Your task to perform on an android device: Open Maps and search for coffee Image 0: 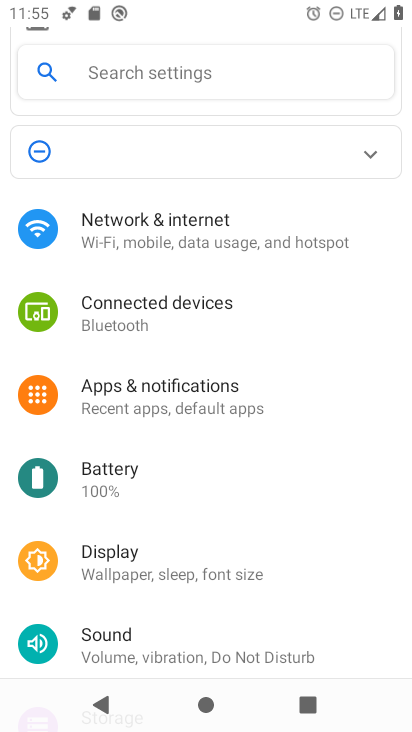
Step 0: press home button
Your task to perform on an android device: Open Maps and search for coffee Image 1: 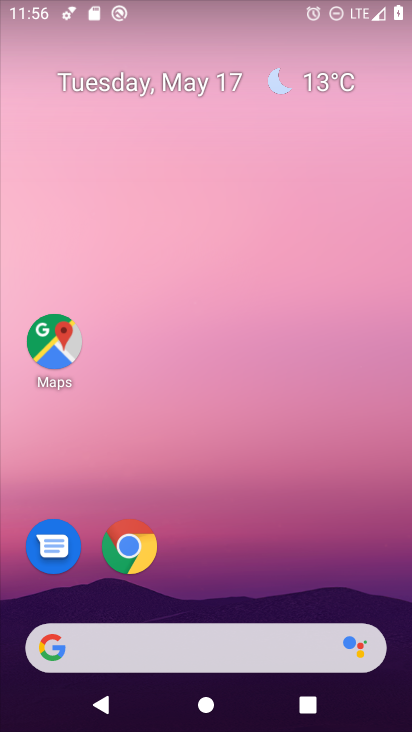
Step 1: click (45, 352)
Your task to perform on an android device: Open Maps and search for coffee Image 2: 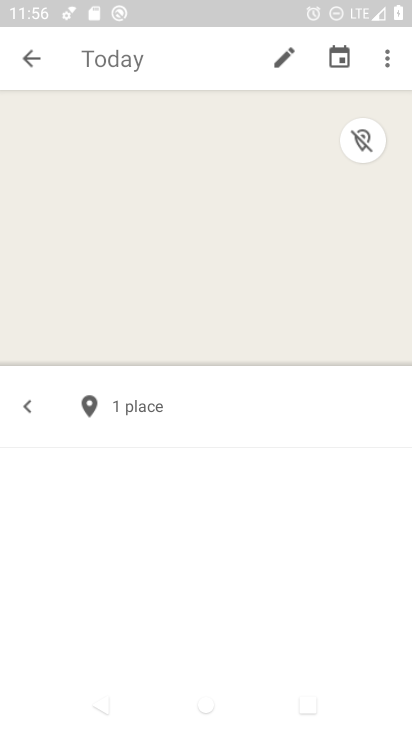
Step 2: click (46, 60)
Your task to perform on an android device: Open Maps and search for coffee Image 3: 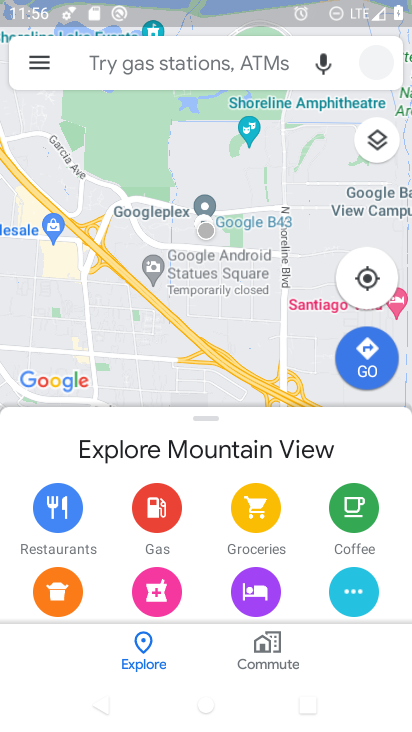
Step 3: click (97, 72)
Your task to perform on an android device: Open Maps and search for coffee Image 4: 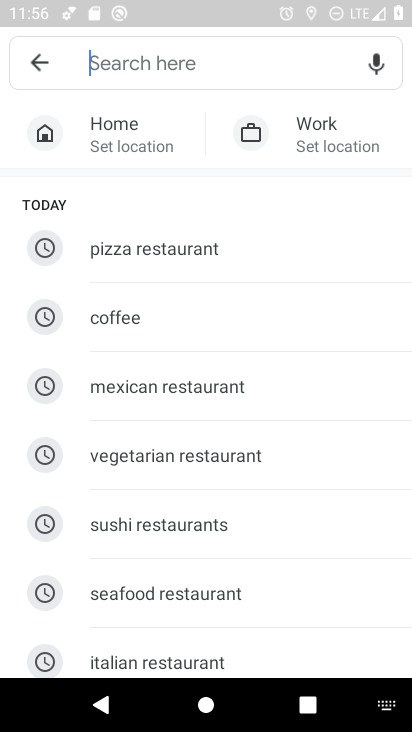
Step 4: type "coffee"
Your task to perform on an android device: Open Maps and search for coffee Image 5: 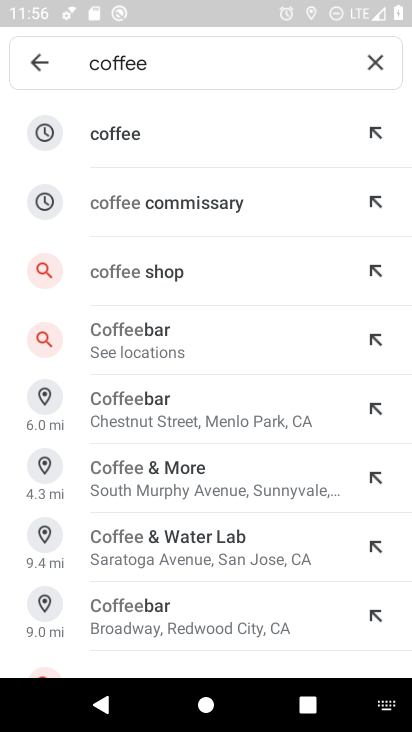
Step 5: click (100, 137)
Your task to perform on an android device: Open Maps and search for coffee Image 6: 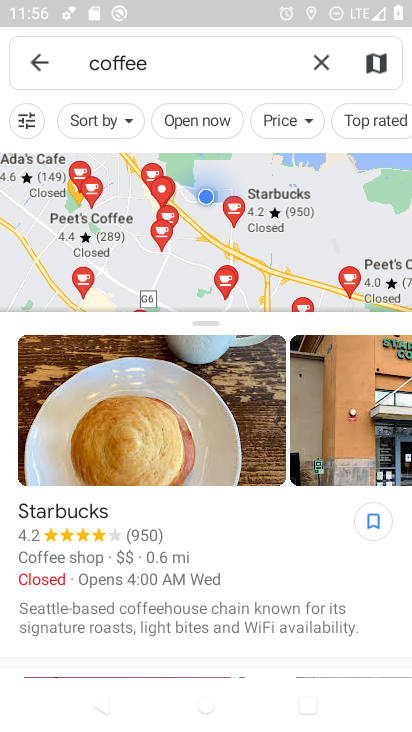
Step 6: task complete